Your task to perform on an android device: Search for Italian restaurants on Maps Image 0: 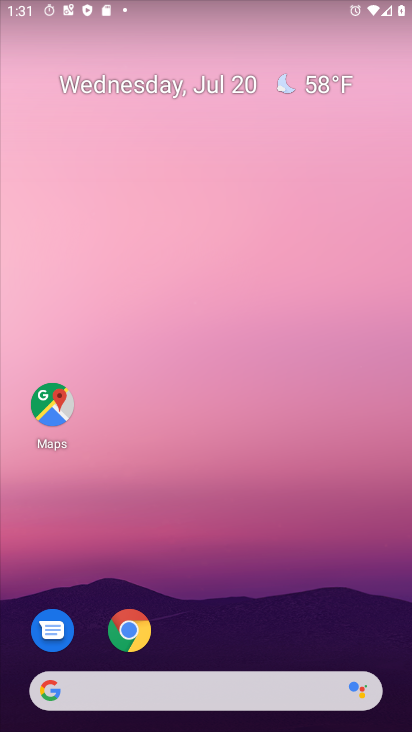
Step 0: click (59, 402)
Your task to perform on an android device: Search for Italian restaurants on Maps Image 1: 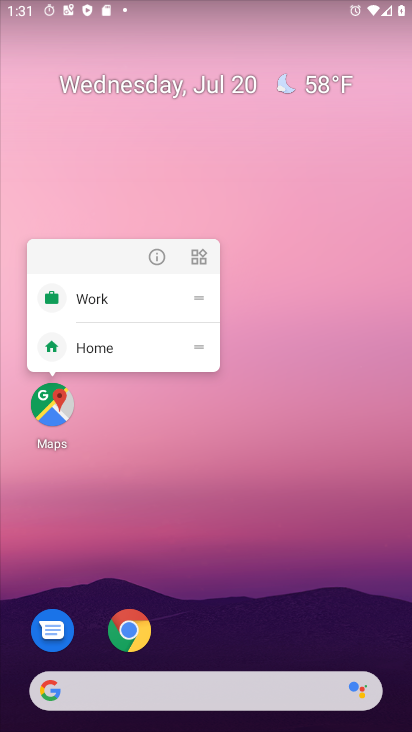
Step 1: click (52, 411)
Your task to perform on an android device: Search for Italian restaurants on Maps Image 2: 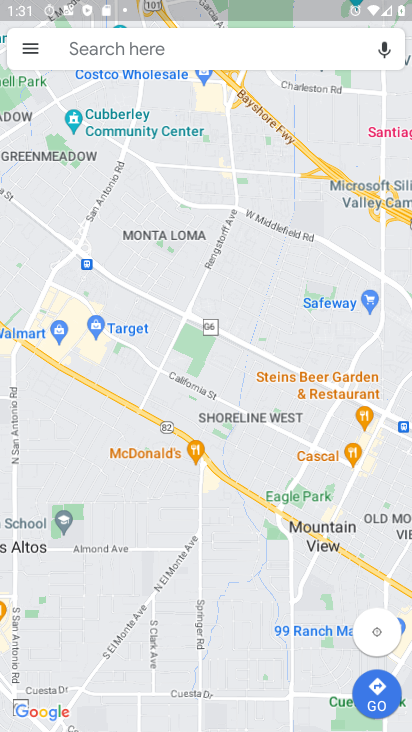
Step 2: click (141, 49)
Your task to perform on an android device: Search for Italian restaurants on Maps Image 3: 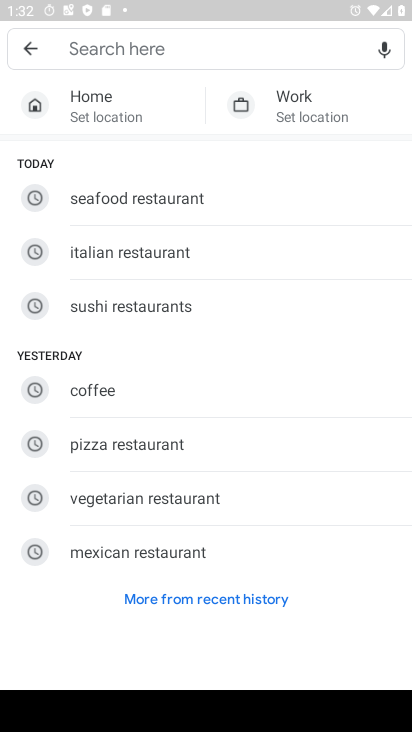
Step 3: click (119, 261)
Your task to perform on an android device: Search for Italian restaurants on Maps Image 4: 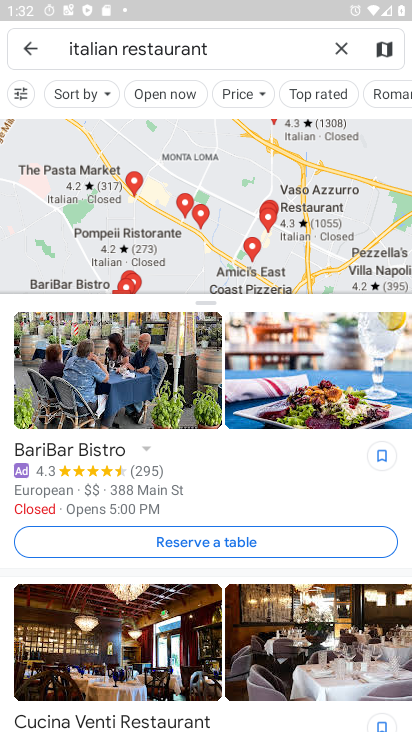
Step 4: task complete